Your task to perform on an android device: Open Google Image 0: 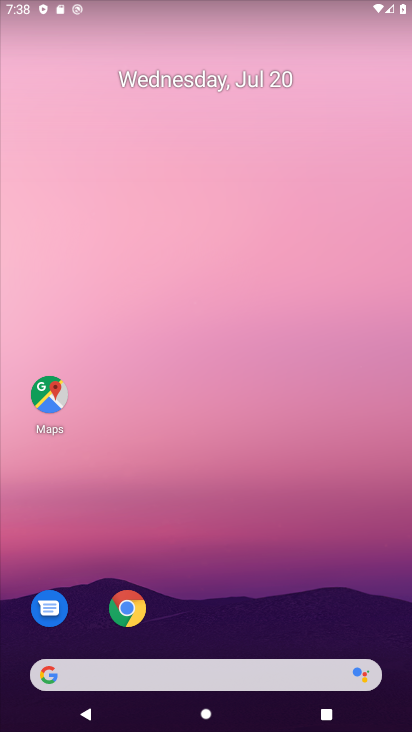
Step 0: click (53, 667)
Your task to perform on an android device: Open Google Image 1: 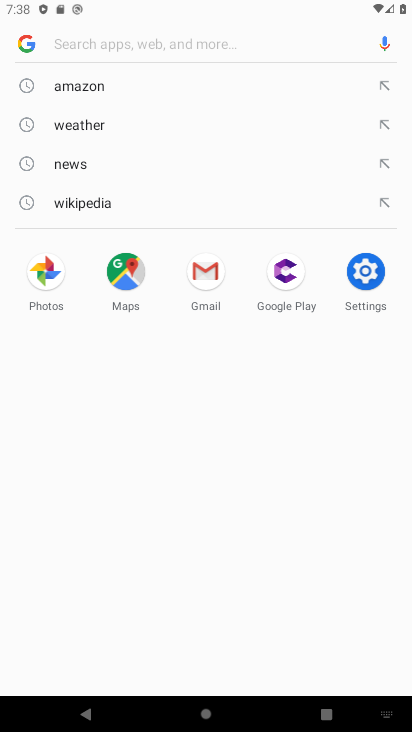
Step 1: click (26, 41)
Your task to perform on an android device: Open Google Image 2: 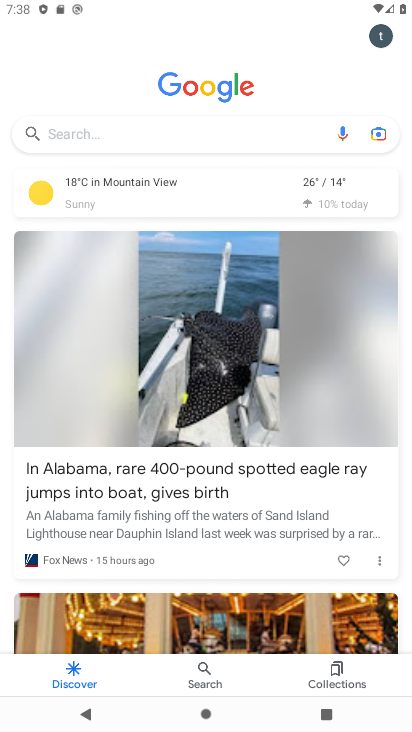
Step 2: task complete